Your task to perform on an android device: Search for vegetarian restaurants on Maps Image 0: 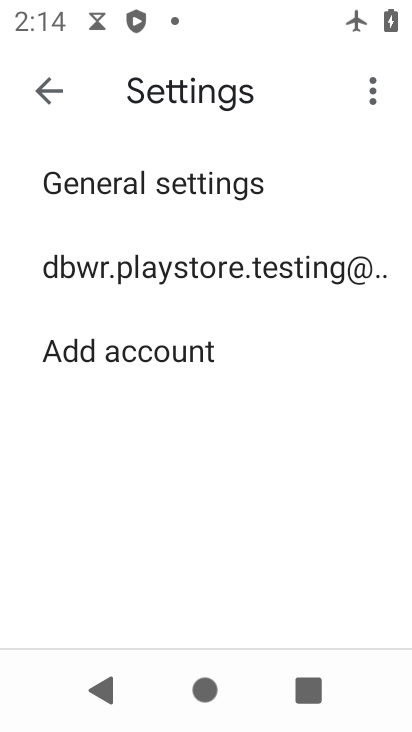
Step 0: click (37, 95)
Your task to perform on an android device: Search for vegetarian restaurants on Maps Image 1: 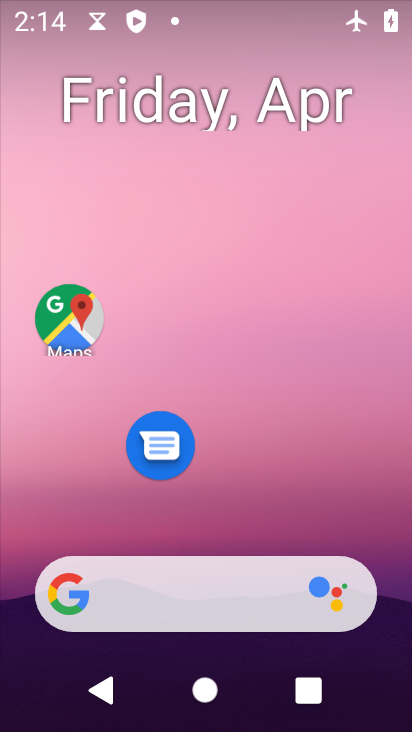
Step 1: click (66, 335)
Your task to perform on an android device: Search for vegetarian restaurants on Maps Image 2: 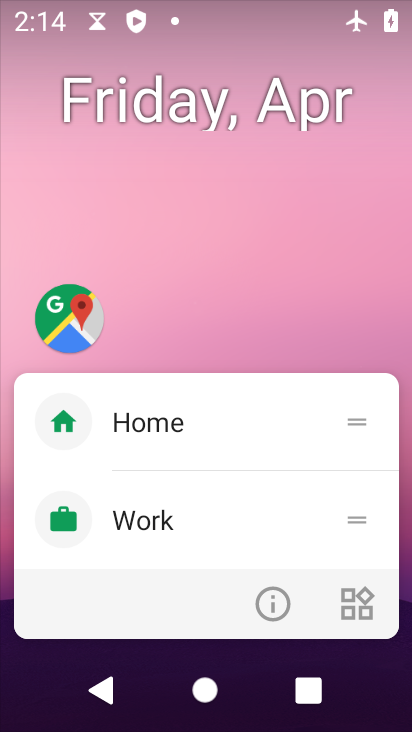
Step 2: click (66, 334)
Your task to perform on an android device: Search for vegetarian restaurants on Maps Image 3: 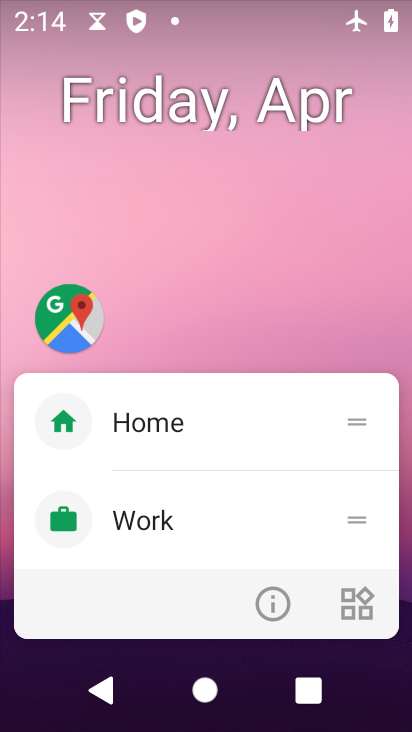
Step 3: click (66, 334)
Your task to perform on an android device: Search for vegetarian restaurants on Maps Image 4: 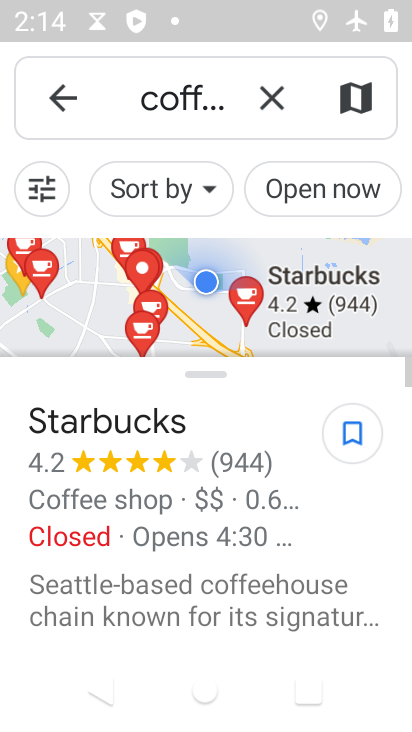
Step 4: click (268, 97)
Your task to perform on an android device: Search for vegetarian restaurants on Maps Image 5: 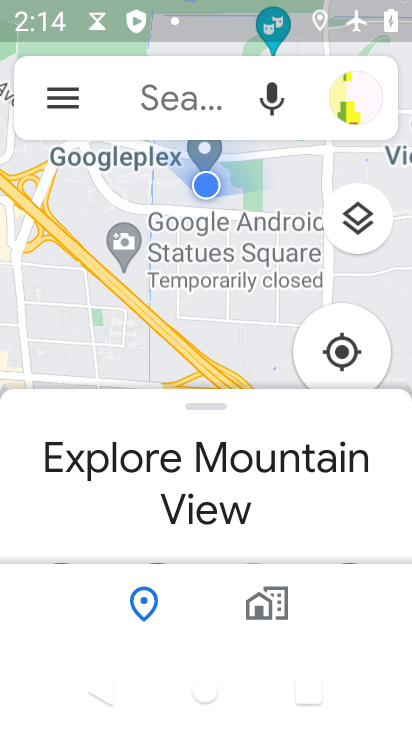
Step 5: click (189, 117)
Your task to perform on an android device: Search for vegetarian restaurants on Maps Image 6: 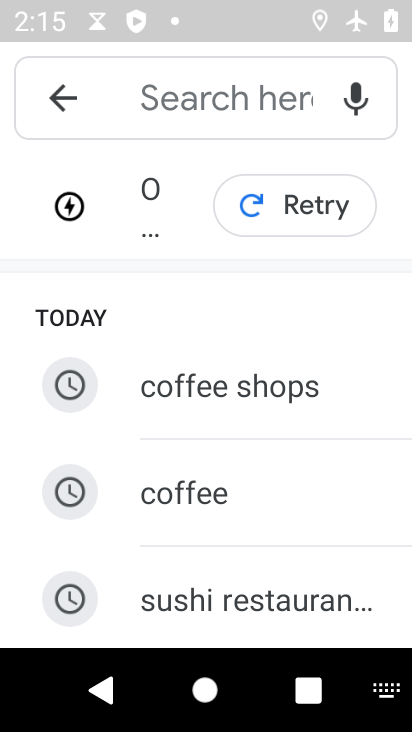
Step 6: type "vegetarian restaurants"
Your task to perform on an android device: Search for vegetarian restaurants on Maps Image 7: 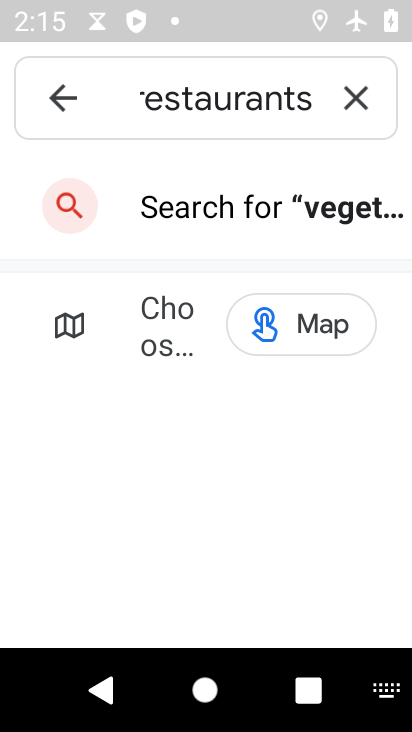
Step 7: click (302, 225)
Your task to perform on an android device: Search for vegetarian restaurants on Maps Image 8: 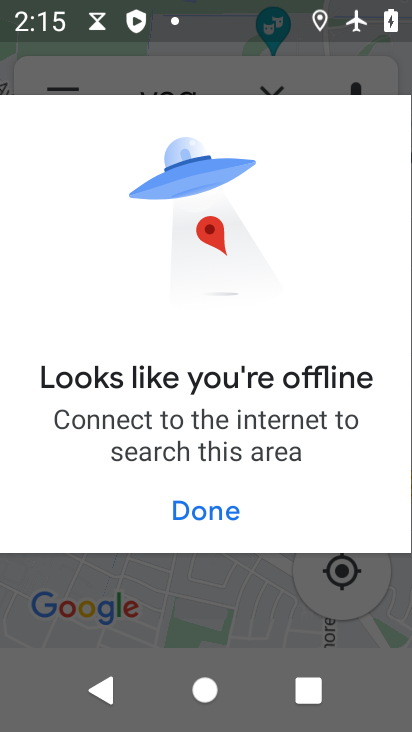
Step 8: task complete